Your task to perform on an android device: move a message to another label in the gmail app Image 0: 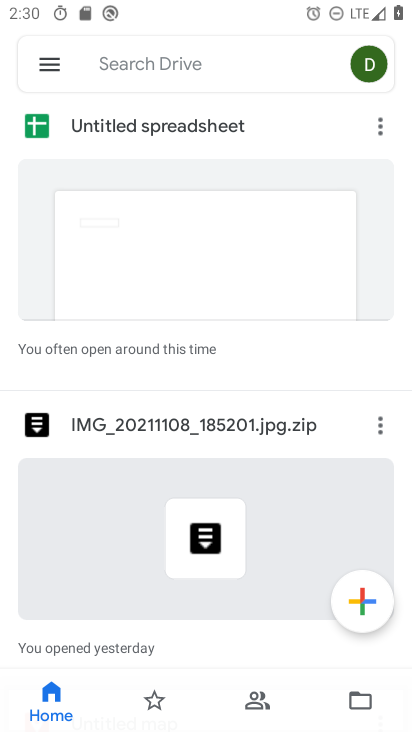
Step 0: press home button
Your task to perform on an android device: move a message to another label in the gmail app Image 1: 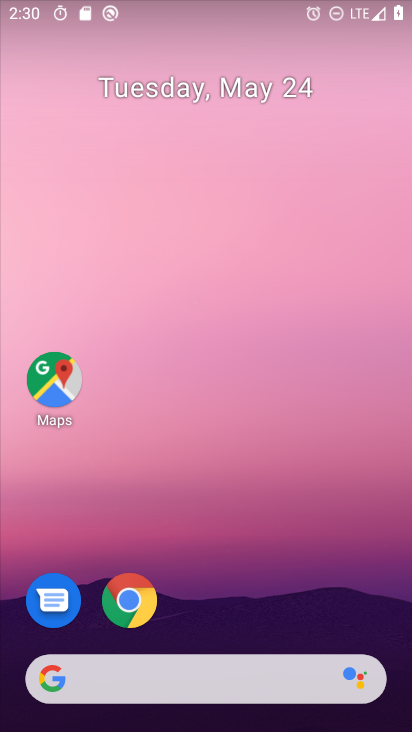
Step 1: drag from (273, 581) to (282, 134)
Your task to perform on an android device: move a message to another label in the gmail app Image 2: 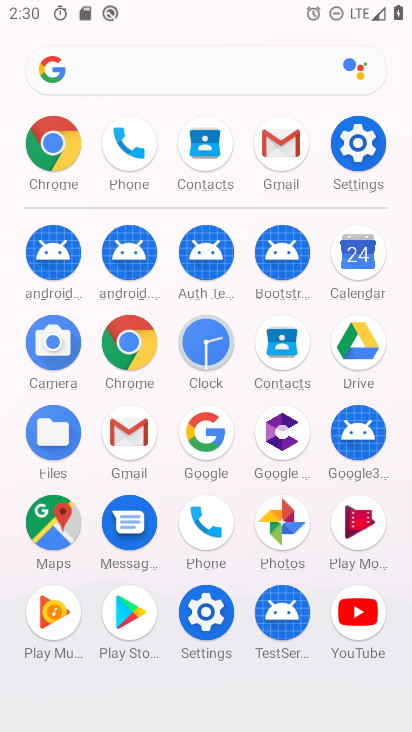
Step 2: click (282, 141)
Your task to perform on an android device: move a message to another label in the gmail app Image 3: 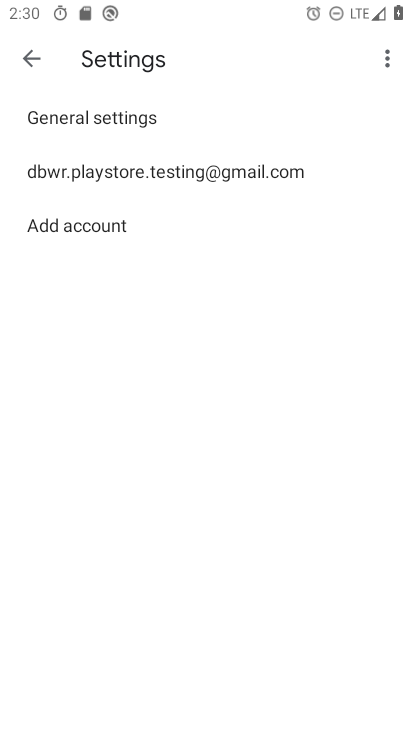
Step 3: click (192, 185)
Your task to perform on an android device: move a message to another label in the gmail app Image 4: 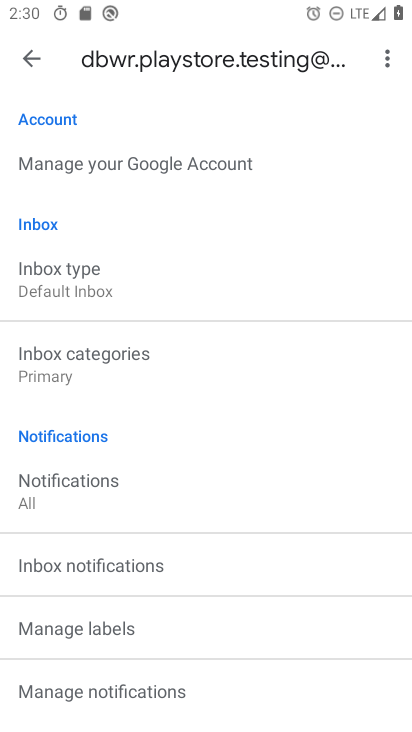
Step 4: drag from (295, 587) to (332, 177)
Your task to perform on an android device: move a message to another label in the gmail app Image 5: 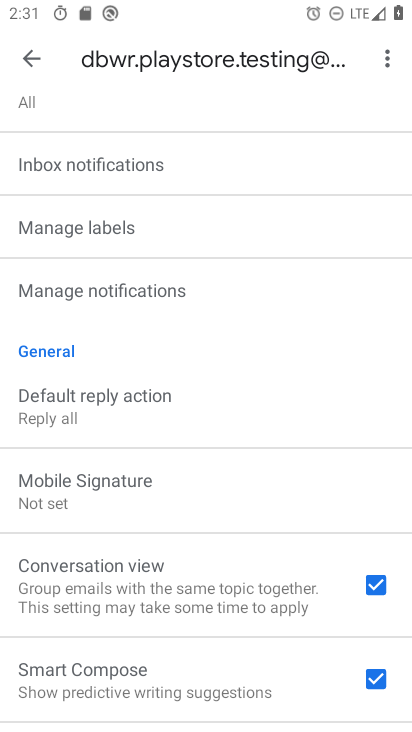
Step 5: drag from (148, 171) to (150, 594)
Your task to perform on an android device: move a message to another label in the gmail app Image 6: 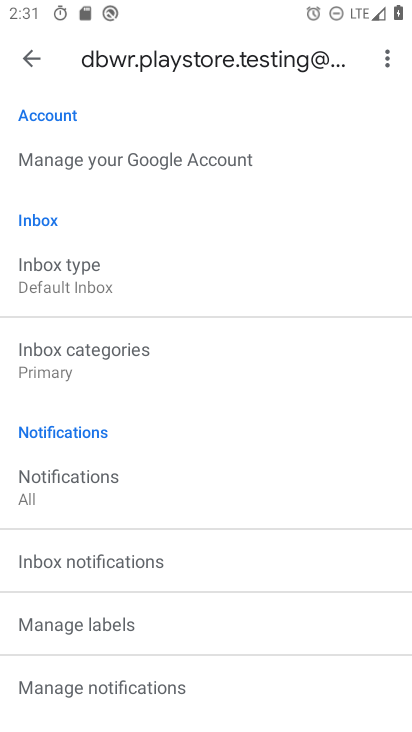
Step 6: click (38, 65)
Your task to perform on an android device: move a message to another label in the gmail app Image 7: 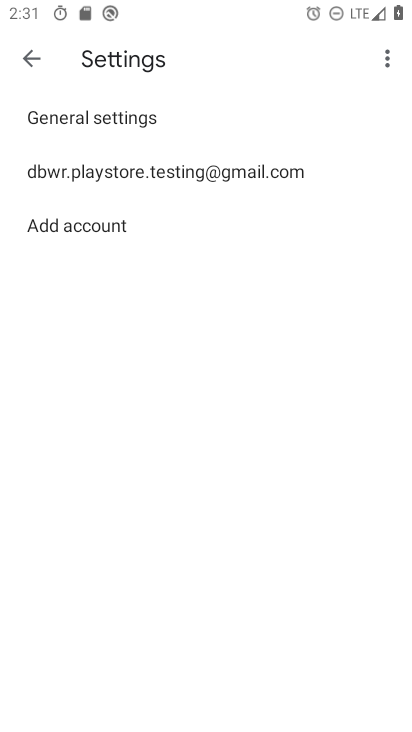
Step 7: click (37, 57)
Your task to perform on an android device: move a message to another label in the gmail app Image 8: 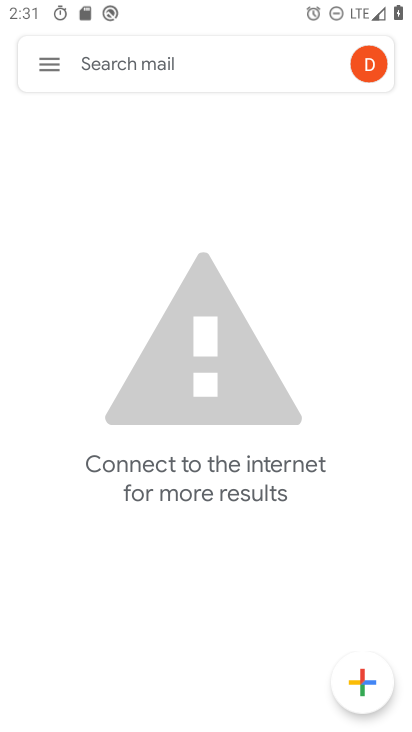
Step 8: click (69, 63)
Your task to perform on an android device: move a message to another label in the gmail app Image 9: 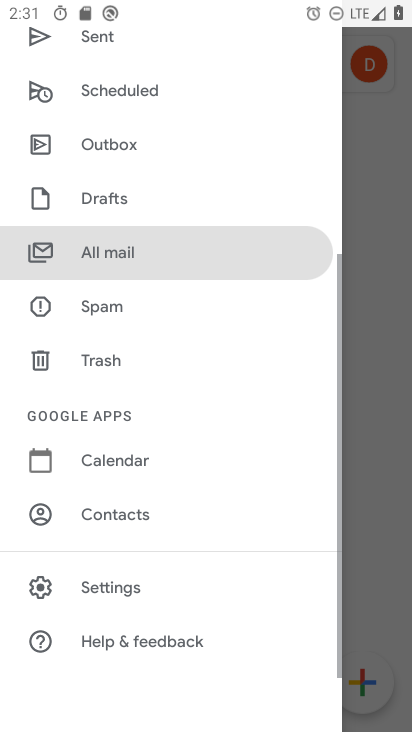
Step 9: drag from (150, 145) to (128, 561)
Your task to perform on an android device: move a message to another label in the gmail app Image 10: 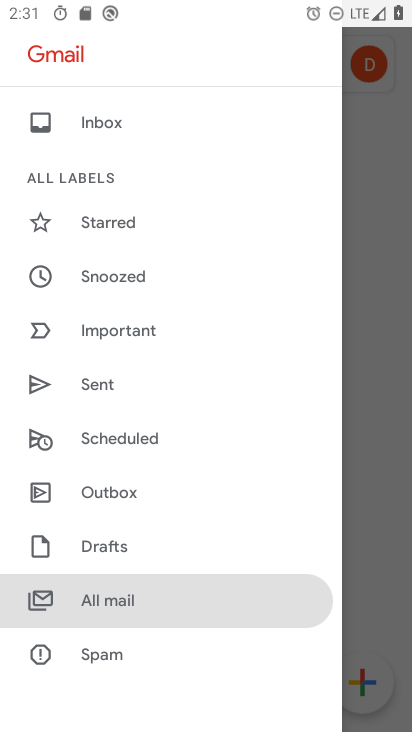
Step 10: click (99, 590)
Your task to perform on an android device: move a message to another label in the gmail app Image 11: 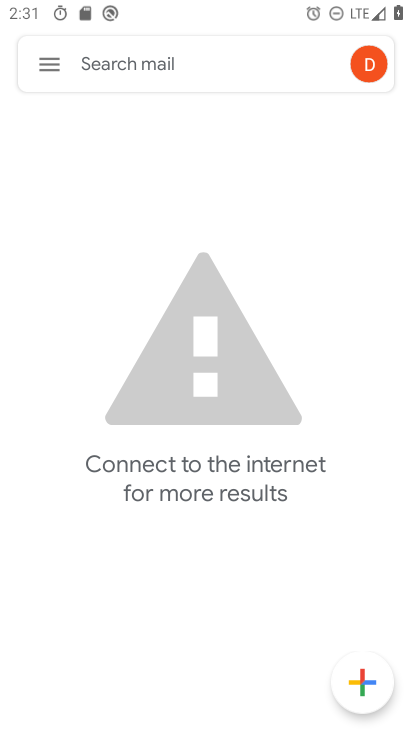
Step 11: task complete